Your task to perform on an android device: Open battery settings Image 0: 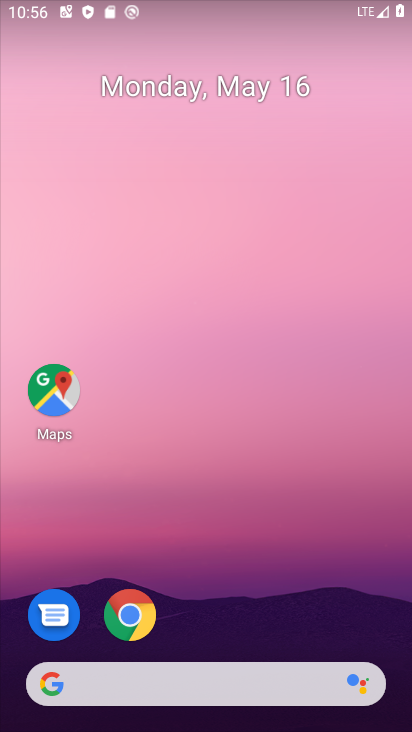
Step 0: drag from (259, 668) to (296, 166)
Your task to perform on an android device: Open battery settings Image 1: 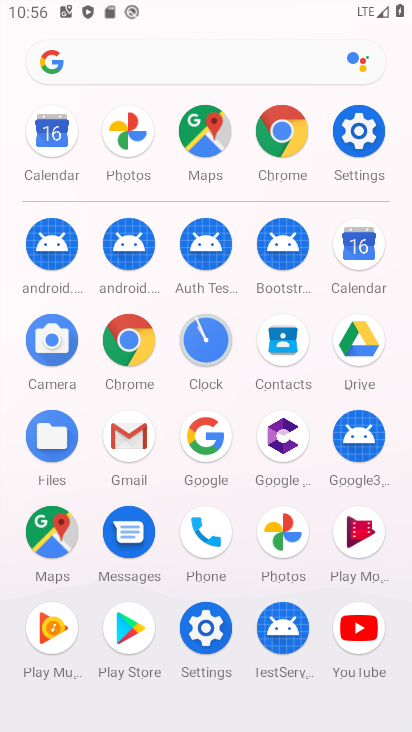
Step 1: click (365, 177)
Your task to perform on an android device: Open battery settings Image 2: 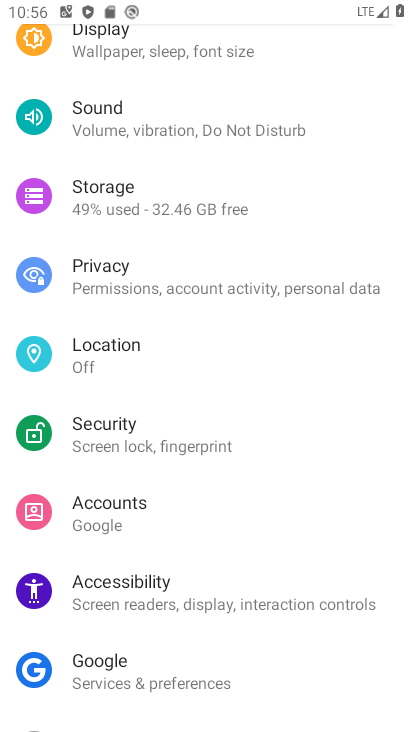
Step 2: drag from (183, 334) to (185, 656)
Your task to perform on an android device: Open battery settings Image 3: 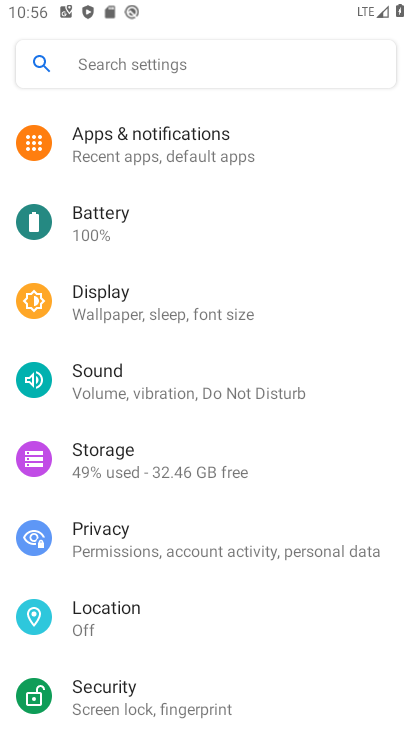
Step 3: click (147, 240)
Your task to perform on an android device: Open battery settings Image 4: 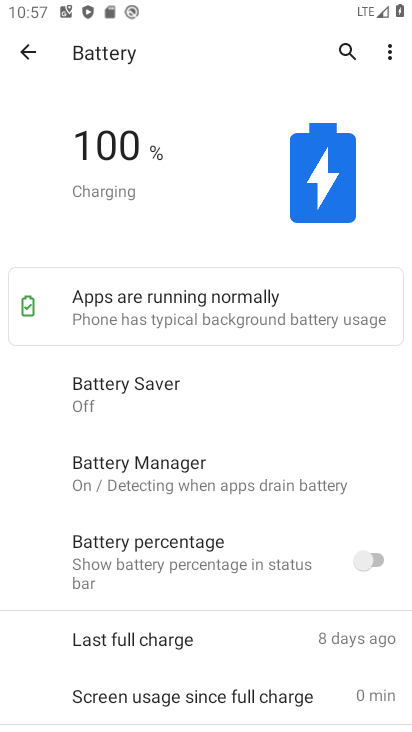
Step 4: task complete